Your task to perform on an android device: Open the stopwatch Image 0: 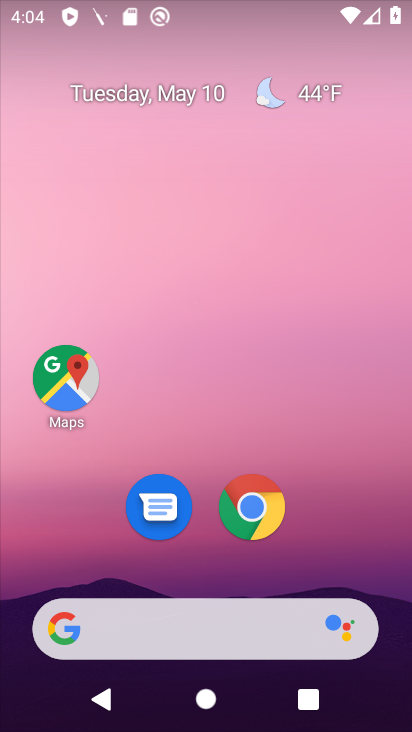
Step 0: drag from (264, 596) to (364, 64)
Your task to perform on an android device: Open the stopwatch Image 1: 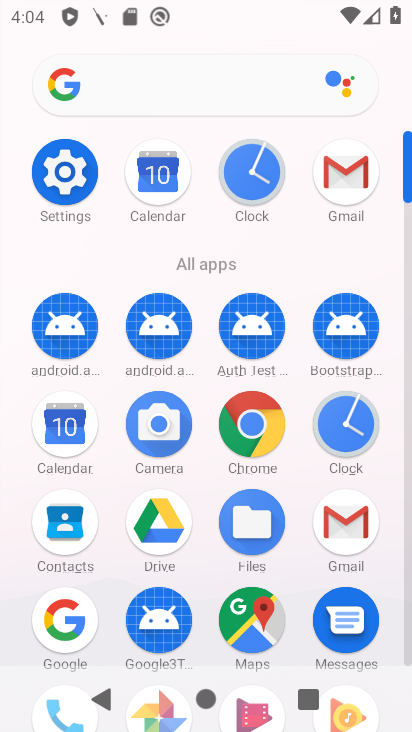
Step 1: click (369, 429)
Your task to perform on an android device: Open the stopwatch Image 2: 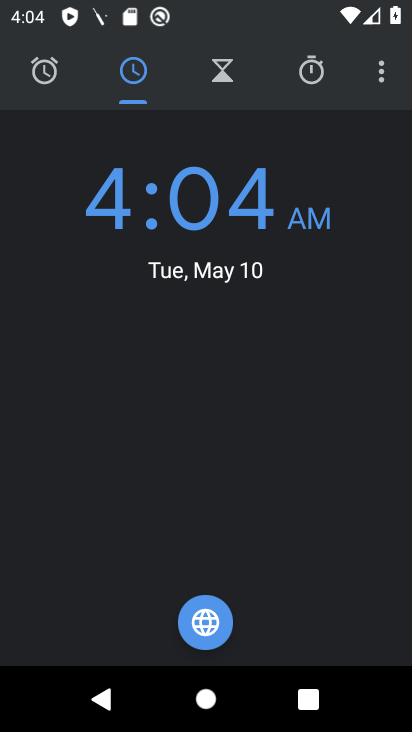
Step 2: click (371, 60)
Your task to perform on an android device: Open the stopwatch Image 3: 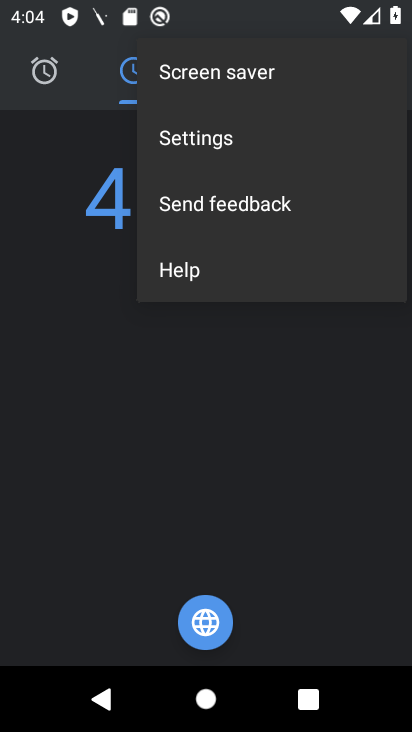
Step 3: click (94, 382)
Your task to perform on an android device: Open the stopwatch Image 4: 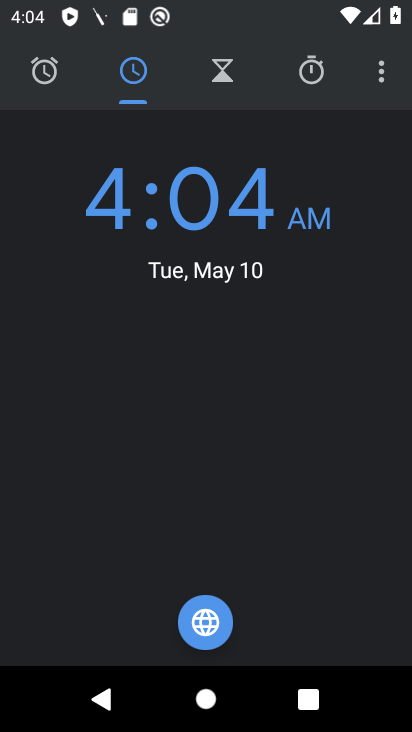
Step 4: click (94, 382)
Your task to perform on an android device: Open the stopwatch Image 5: 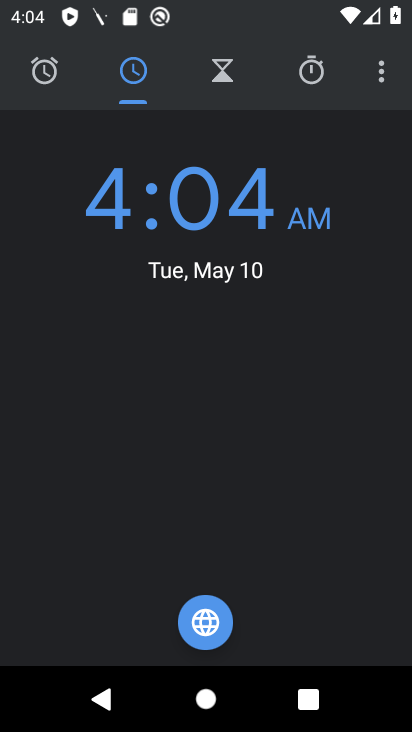
Step 5: click (304, 60)
Your task to perform on an android device: Open the stopwatch Image 6: 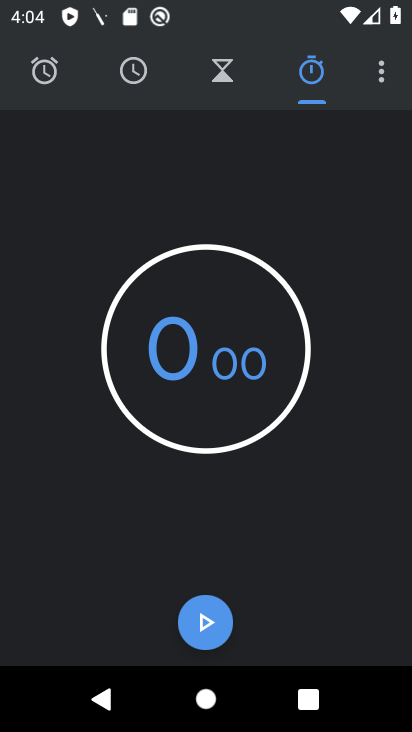
Step 6: task complete